Your task to perform on an android device: Check the weather Image 0: 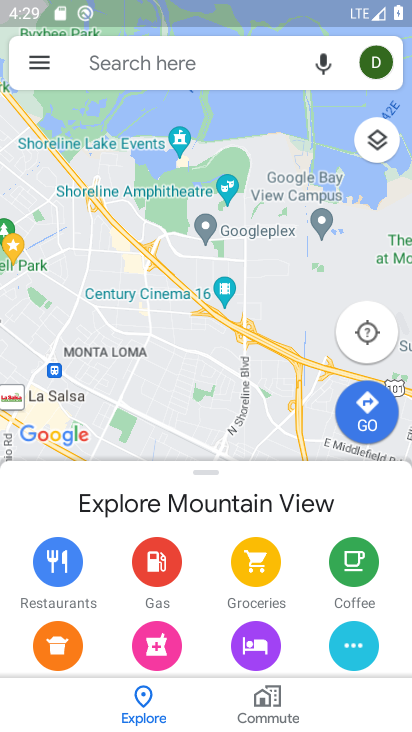
Step 0: press home button
Your task to perform on an android device: Check the weather Image 1: 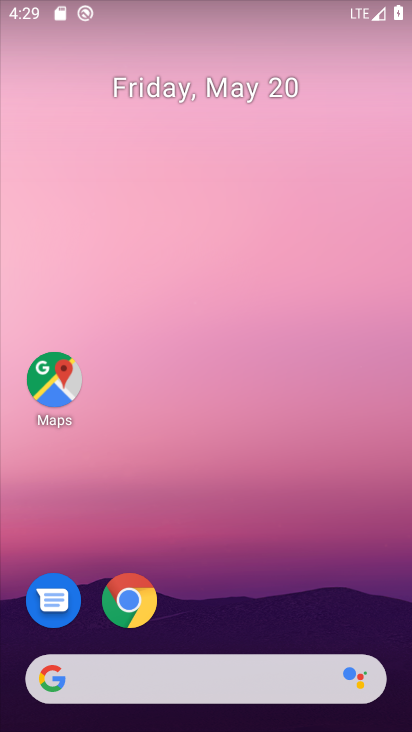
Step 1: drag from (253, 562) to (186, 105)
Your task to perform on an android device: Check the weather Image 2: 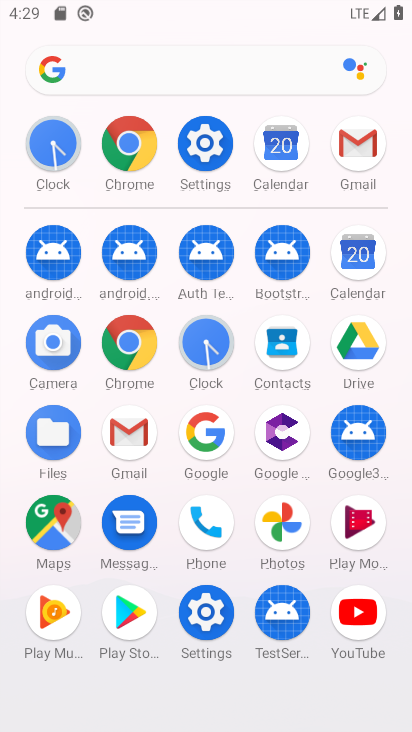
Step 2: click (222, 443)
Your task to perform on an android device: Check the weather Image 3: 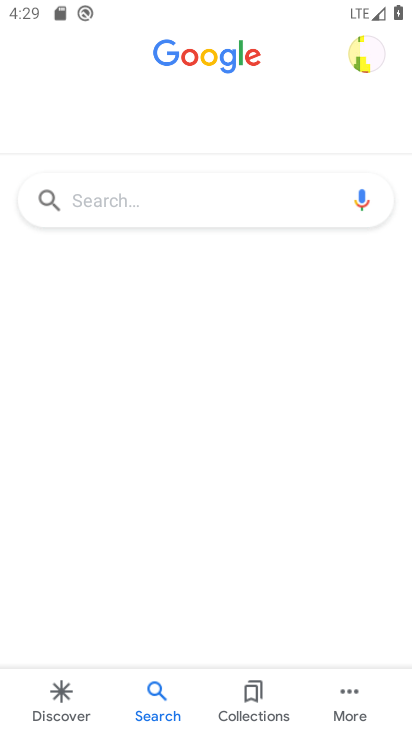
Step 3: click (199, 200)
Your task to perform on an android device: Check the weather Image 4: 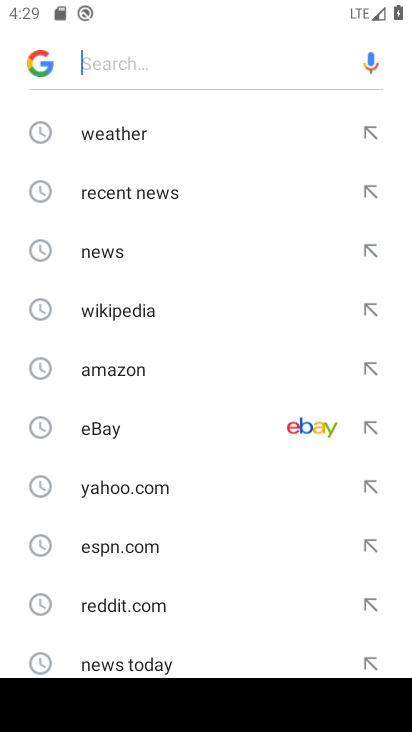
Step 4: click (150, 137)
Your task to perform on an android device: Check the weather Image 5: 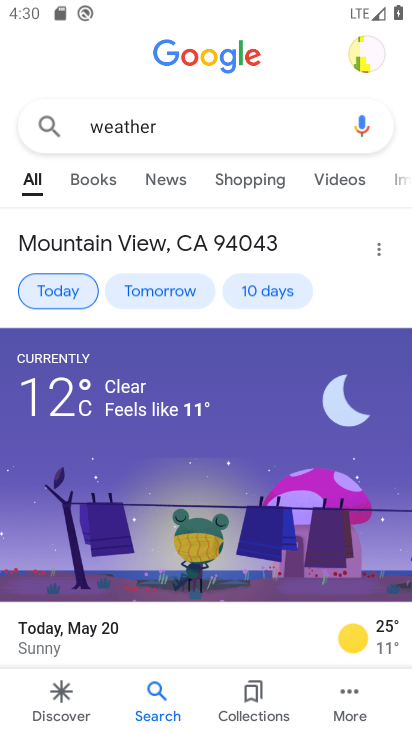
Step 5: task complete